Your task to perform on an android device: open the mobile data screen to see how much data has been used Image 0: 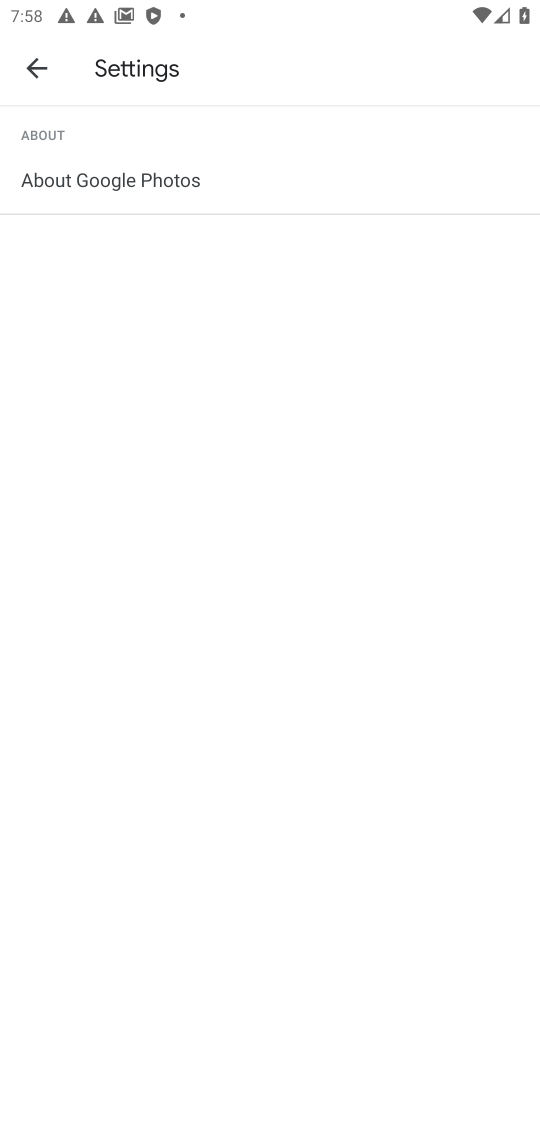
Step 0: drag from (311, 3) to (303, 908)
Your task to perform on an android device: open the mobile data screen to see how much data has been used Image 1: 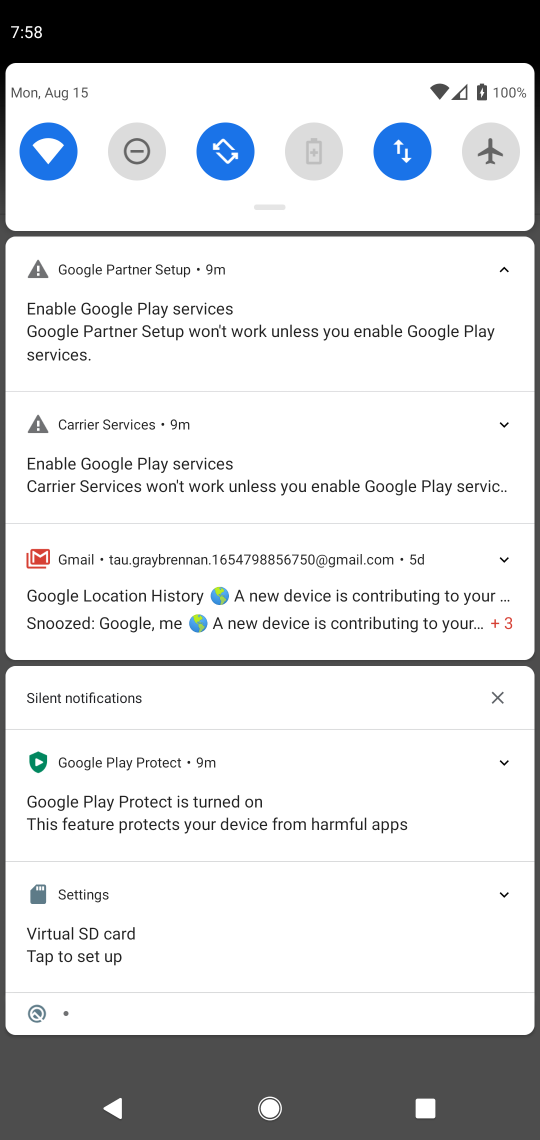
Step 1: click (412, 152)
Your task to perform on an android device: open the mobile data screen to see how much data has been used Image 2: 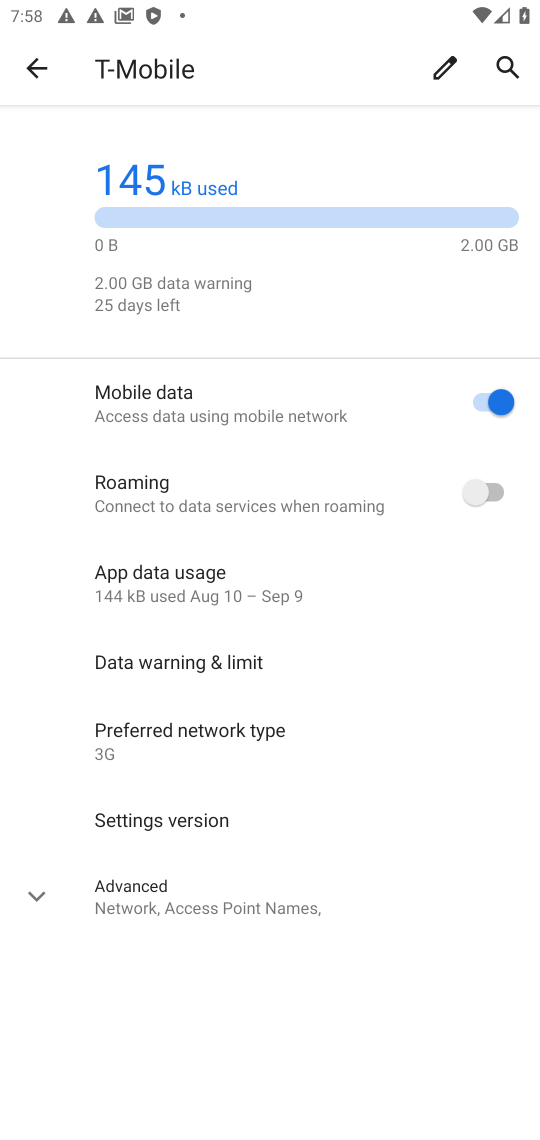
Step 2: task complete